Your task to perform on an android device: toggle translation in the chrome app Image 0: 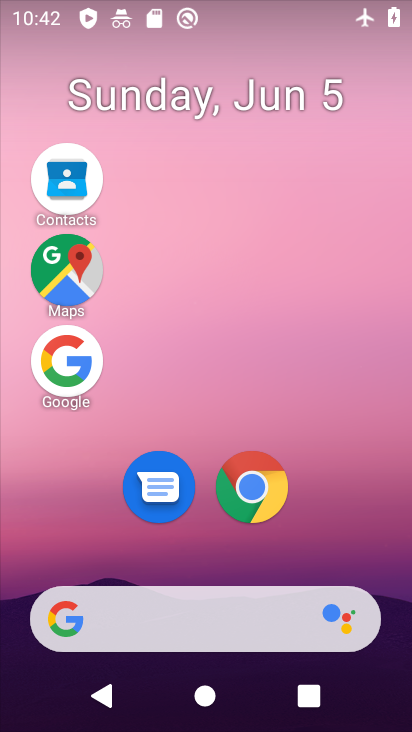
Step 0: drag from (217, 568) to (222, 9)
Your task to perform on an android device: toggle translation in the chrome app Image 1: 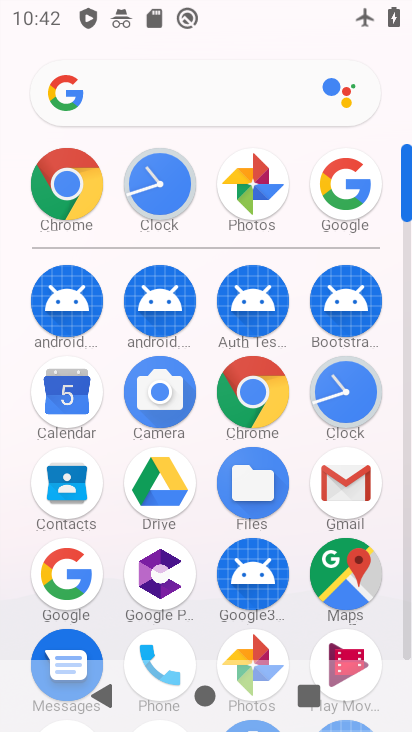
Step 1: click (276, 411)
Your task to perform on an android device: toggle translation in the chrome app Image 2: 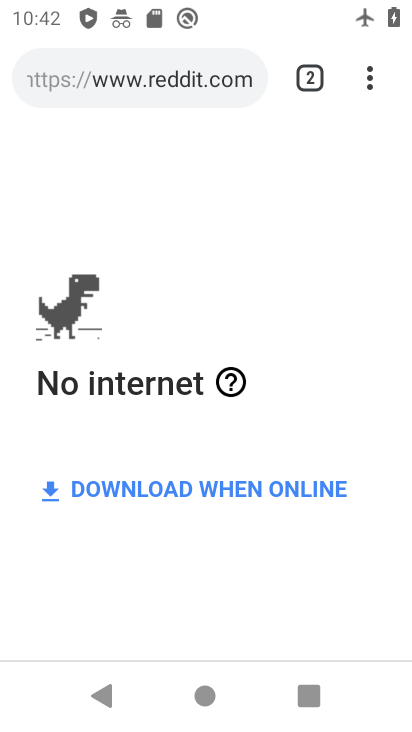
Step 2: click (363, 79)
Your task to perform on an android device: toggle translation in the chrome app Image 3: 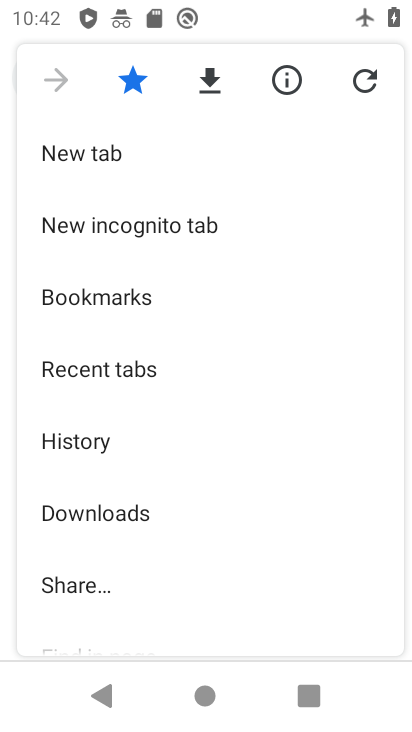
Step 3: task complete